Your task to perform on an android device: Show me productivity apps on the Play Store Image 0: 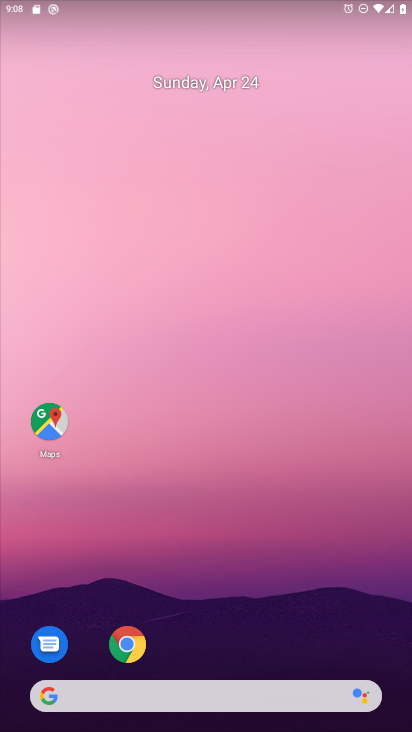
Step 0: drag from (205, 670) to (73, 48)
Your task to perform on an android device: Show me productivity apps on the Play Store Image 1: 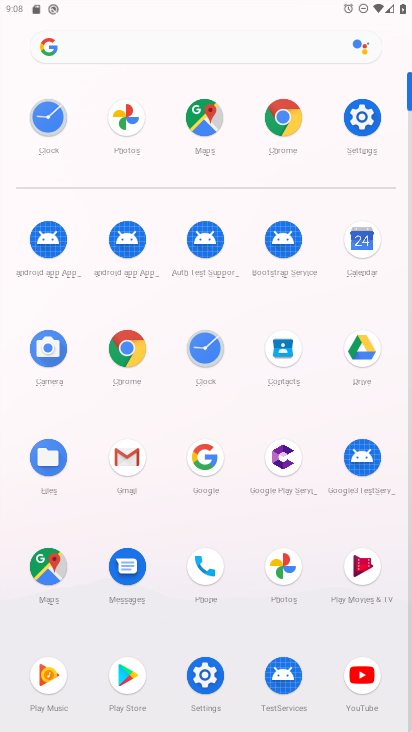
Step 1: click (110, 675)
Your task to perform on an android device: Show me productivity apps on the Play Store Image 2: 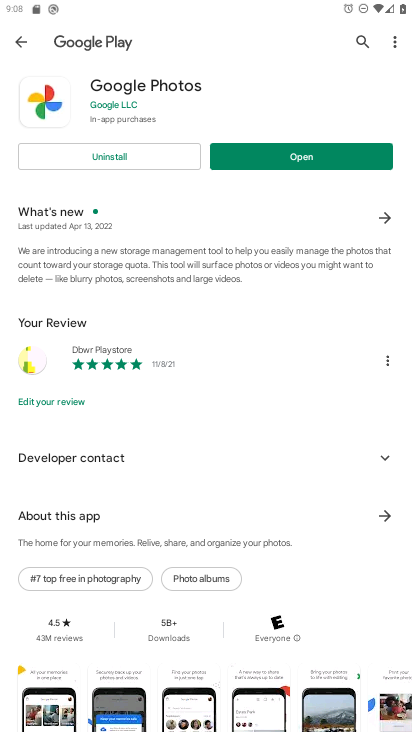
Step 2: click (15, 44)
Your task to perform on an android device: Show me productivity apps on the Play Store Image 3: 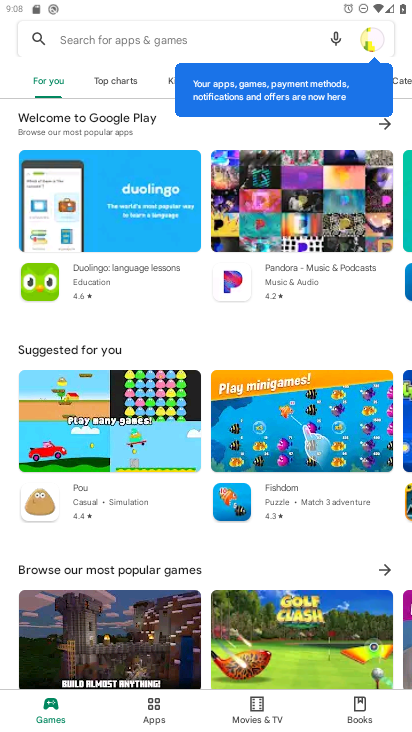
Step 3: click (147, 712)
Your task to perform on an android device: Show me productivity apps on the Play Store Image 4: 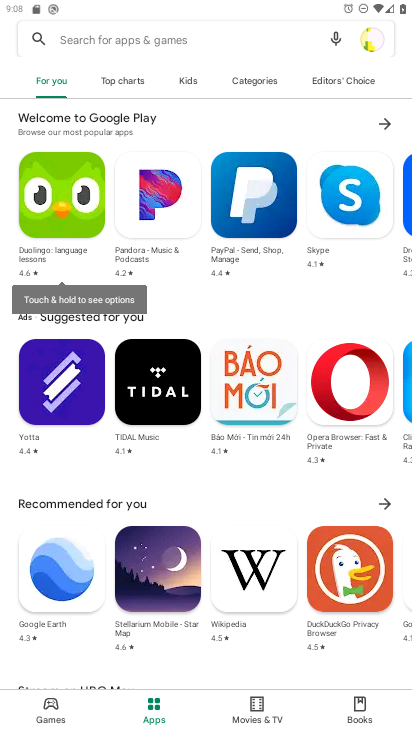
Step 4: click (234, 72)
Your task to perform on an android device: Show me productivity apps on the Play Store Image 5: 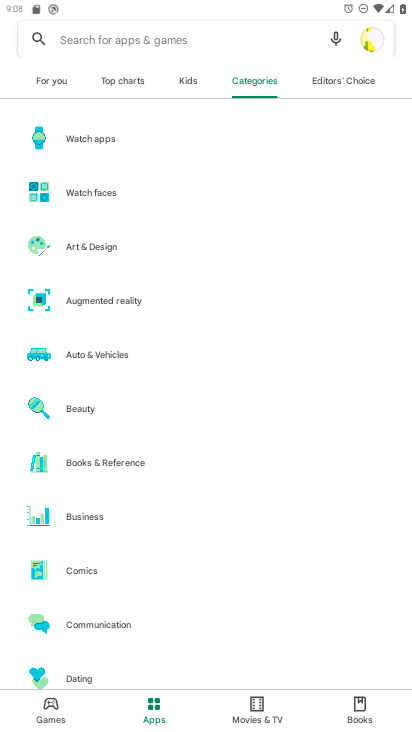
Step 5: drag from (226, 557) to (122, 65)
Your task to perform on an android device: Show me productivity apps on the Play Store Image 6: 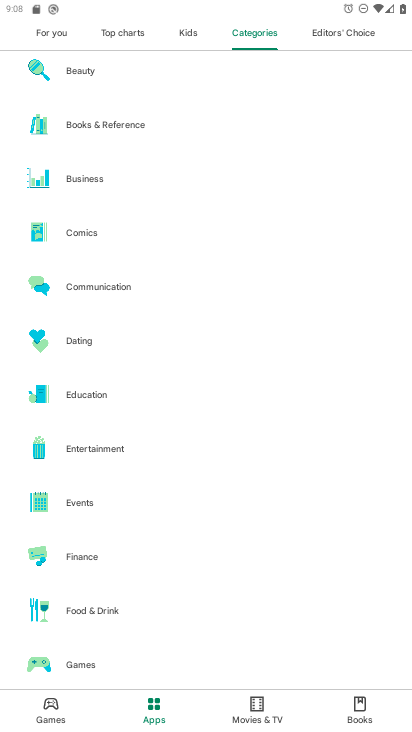
Step 6: drag from (188, 657) to (43, 2)
Your task to perform on an android device: Show me productivity apps on the Play Store Image 7: 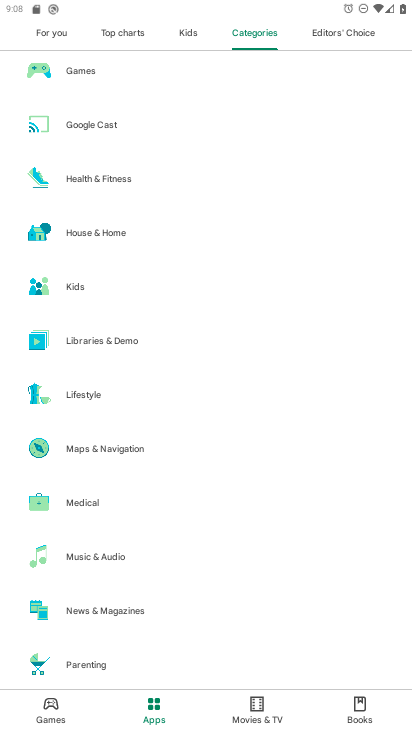
Step 7: drag from (173, 579) to (152, 16)
Your task to perform on an android device: Show me productivity apps on the Play Store Image 8: 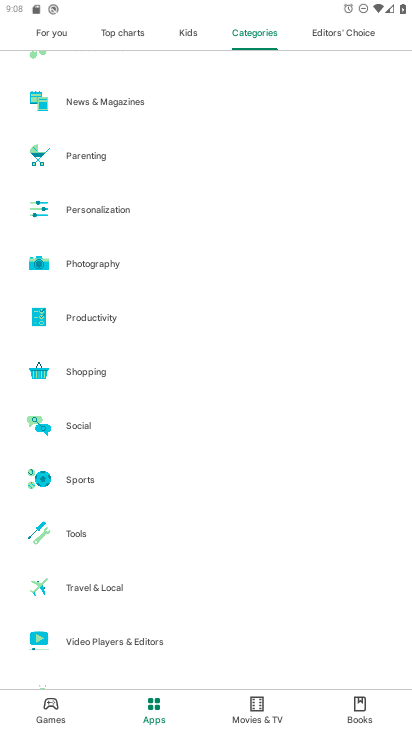
Step 8: click (92, 317)
Your task to perform on an android device: Show me productivity apps on the Play Store Image 9: 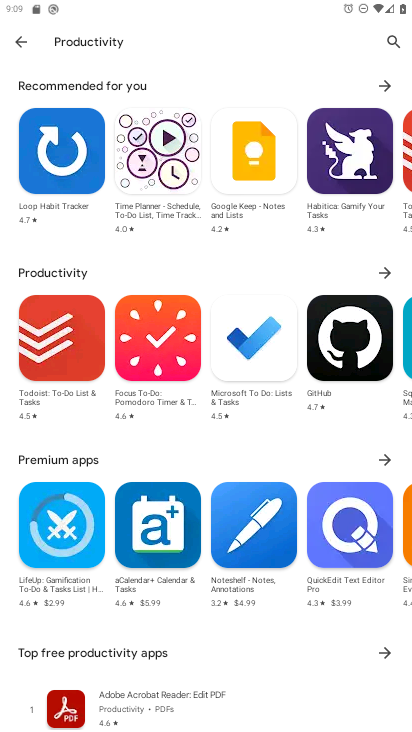
Step 9: task complete